Your task to perform on an android device: Open calendar and show me the second week of next month Image 0: 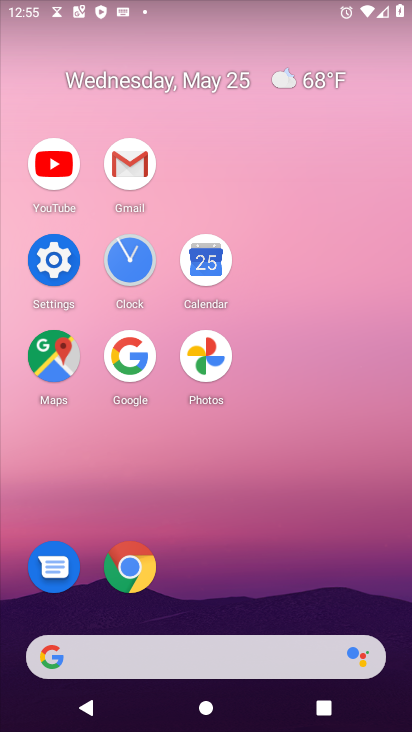
Step 0: click (209, 262)
Your task to perform on an android device: Open calendar and show me the second week of next month Image 1: 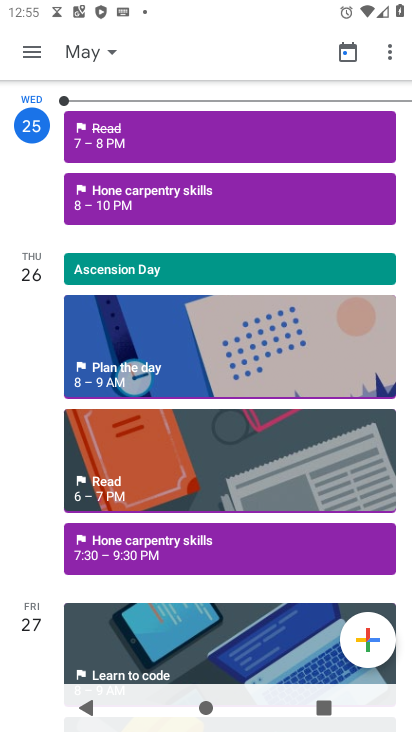
Step 1: click (122, 60)
Your task to perform on an android device: Open calendar and show me the second week of next month Image 2: 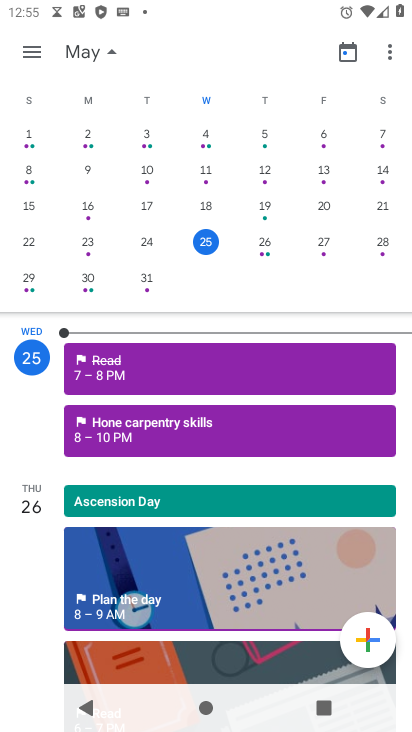
Step 2: drag from (332, 204) to (6, 198)
Your task to perform on an android device: Open calendar and show me the second week of next month Image 3: 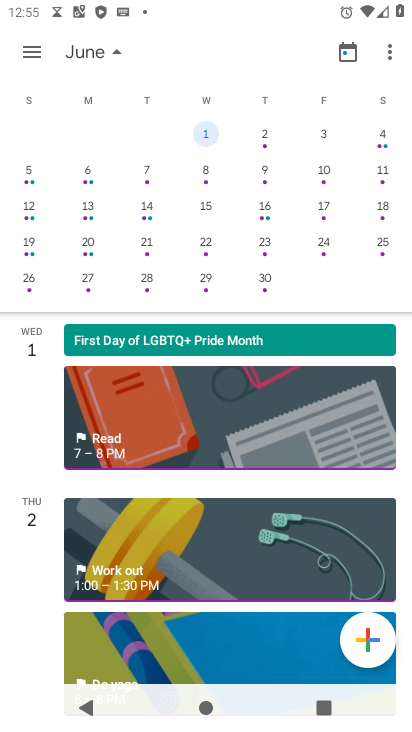
Step 3: click (36, 45)
Your task to perform on an android device: Open calendar and show me the second week of next month Image 4: 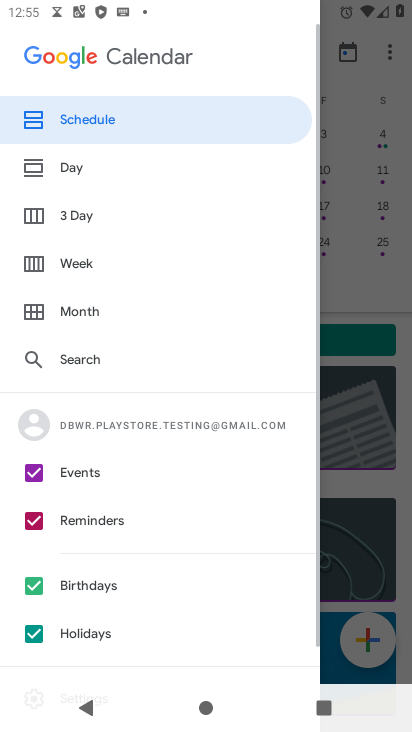
Step 4: click (65, 272)
Your task to perform on an android device: Open calendar and show me the second week of next month Image 5: 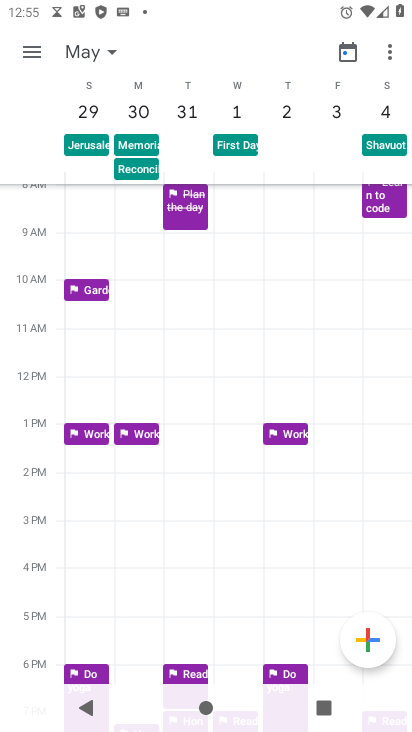
Step 5: task complete